Your task to perform on an android device: Search for "usb-a" on costco.com, select the first entry, add it to the cart, then select checkout. Image 0: 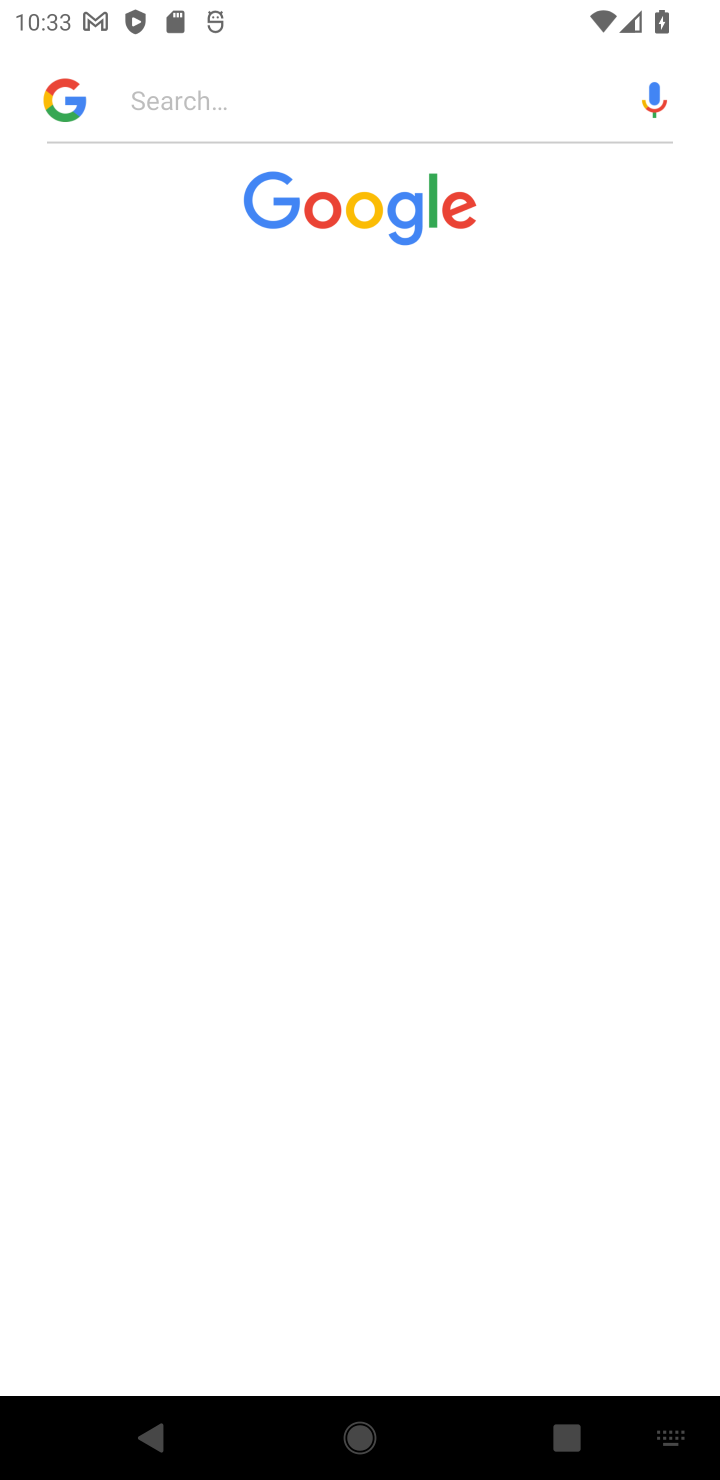
Step 0: press home button
Your task to perform on an android device: Search for "usb-a" on costco.com, select the first entry, add it to the cart, then select checkout. Image 1: 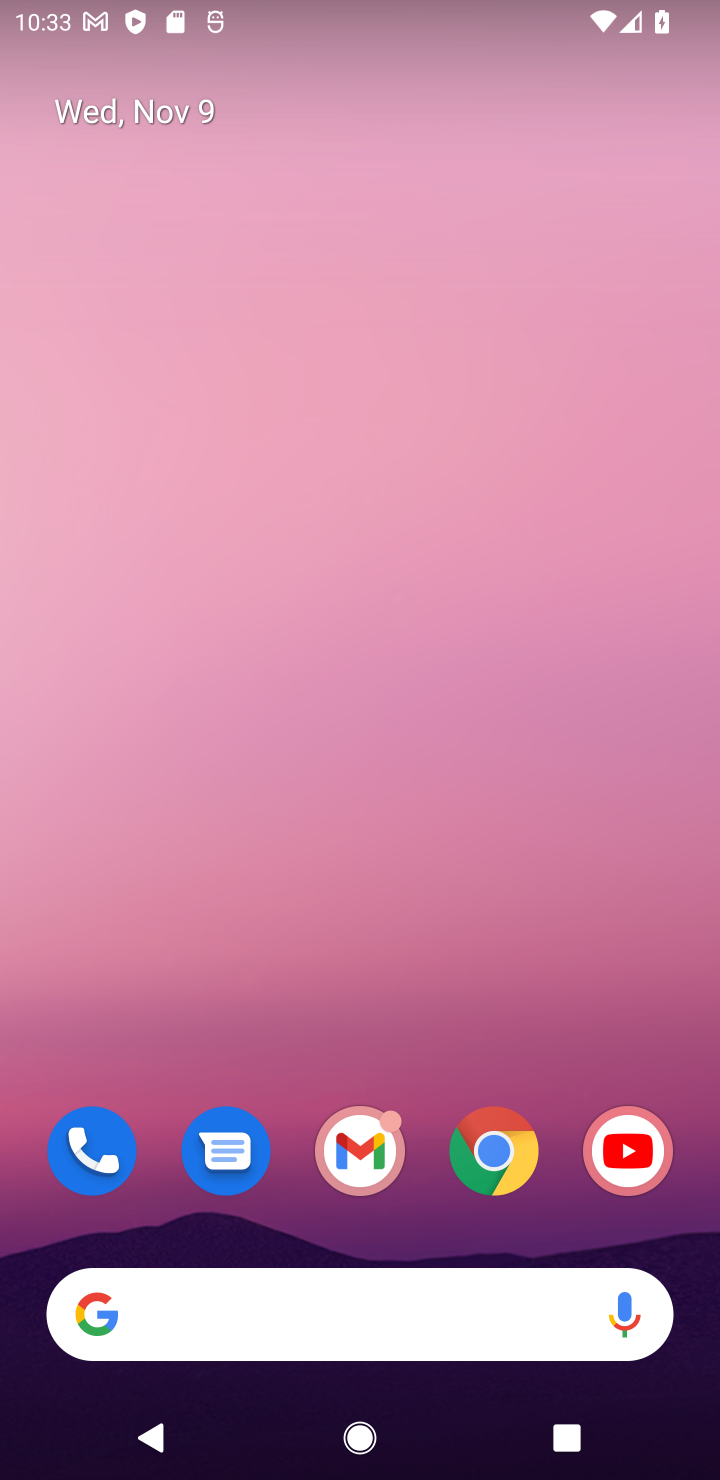
Step 1: click (496, 1157)
Your task to perform on an android device: Search for "usb-a" on costco.com, select the first entry, add it to the cart, then select checkout. Image 2: 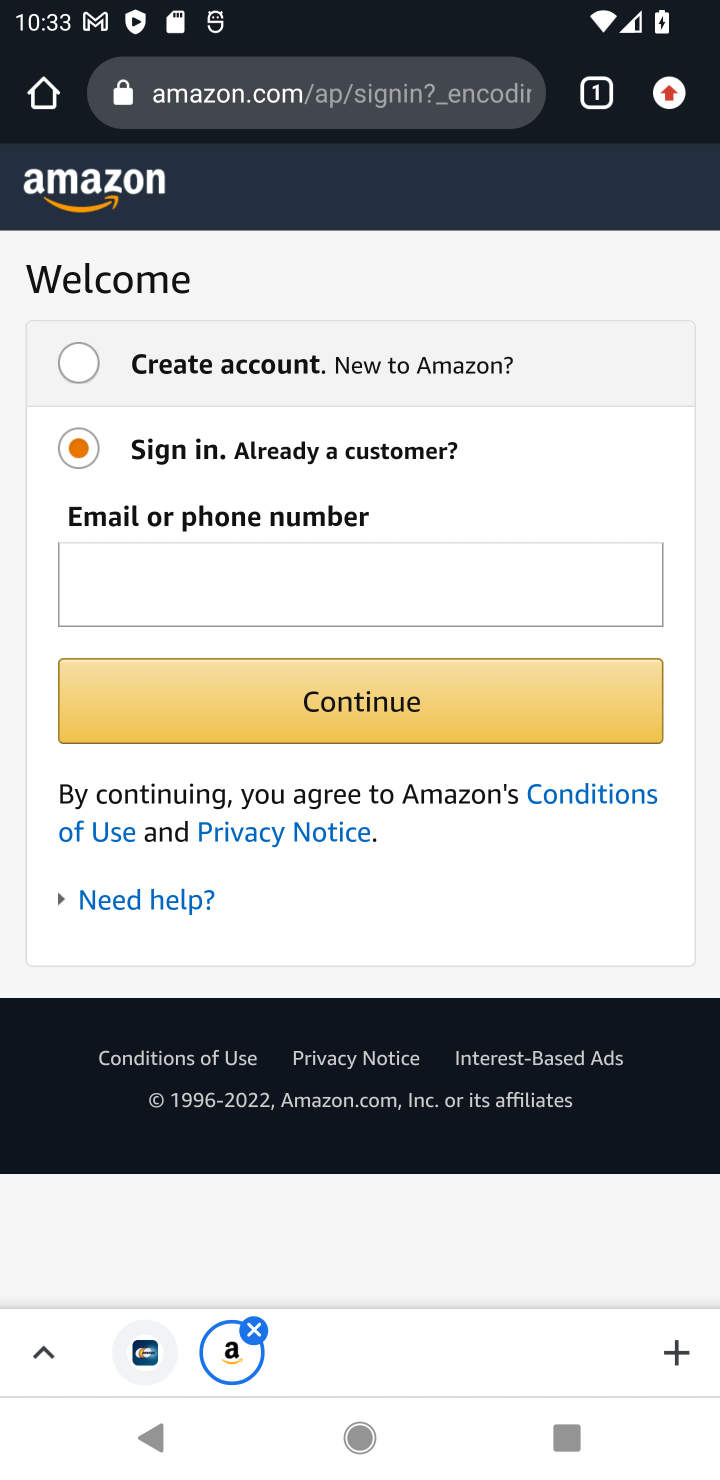
Step 2: click (366, 78)
Your task to perform on an android device: Search for "usb-a" on costco.com, select the first entry, add it to the cart, then select checkout. Image 3: 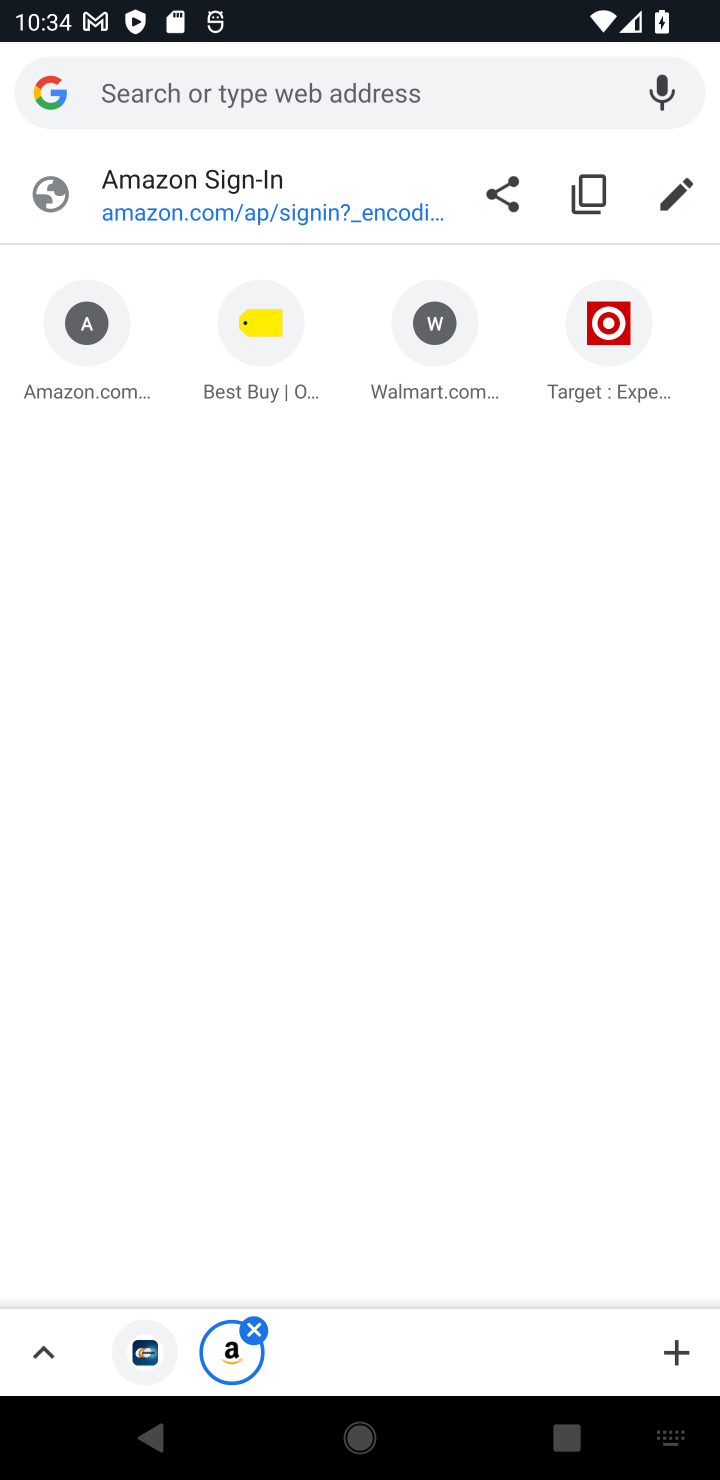
Step 3: press enter
Your task to perform on an android device: Search for "usb-a" on costco.com, select the first entry, add it to the cart, then select checkout. Image 4: 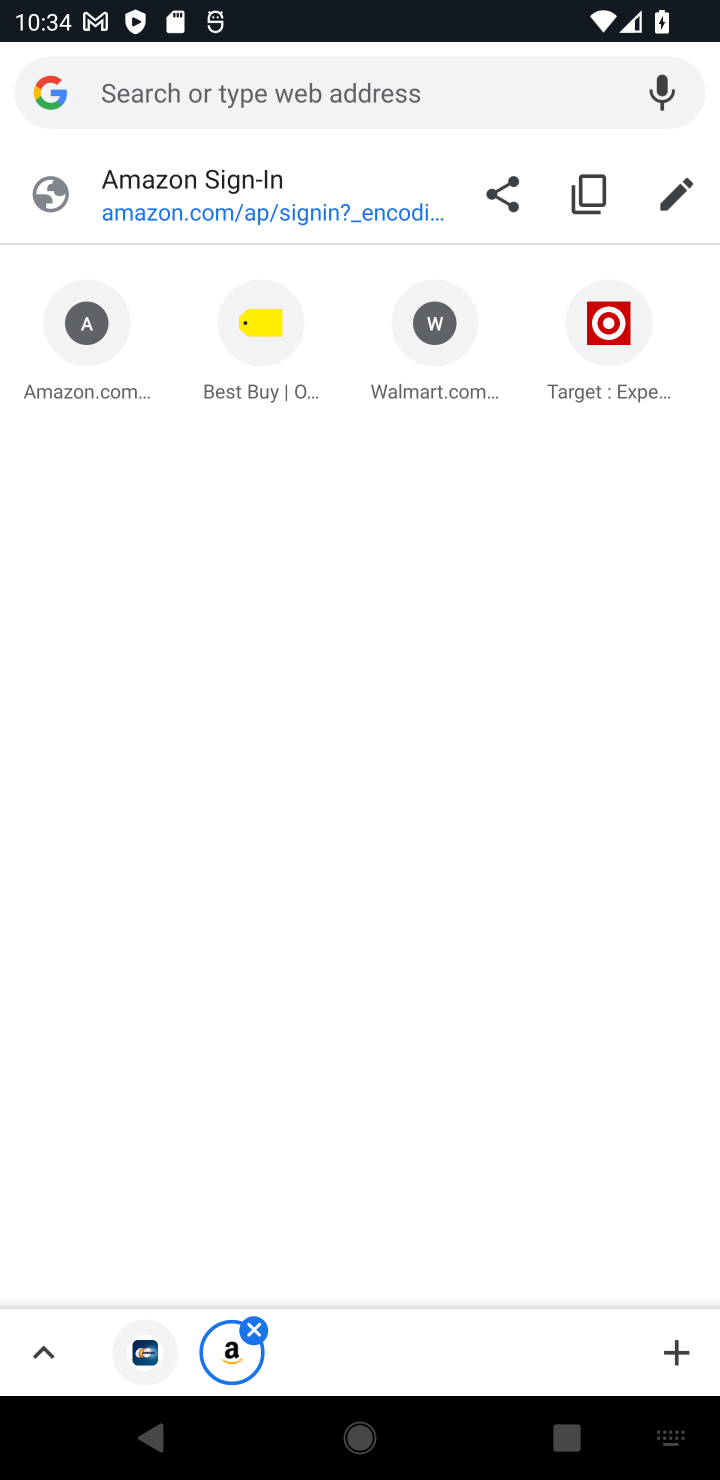
Step 4: type "costco.com"
Your task to perform on an android device: Search for "usb-a" on costco.com, select the first entry, add it to the cart, then select checkout. Image 5: 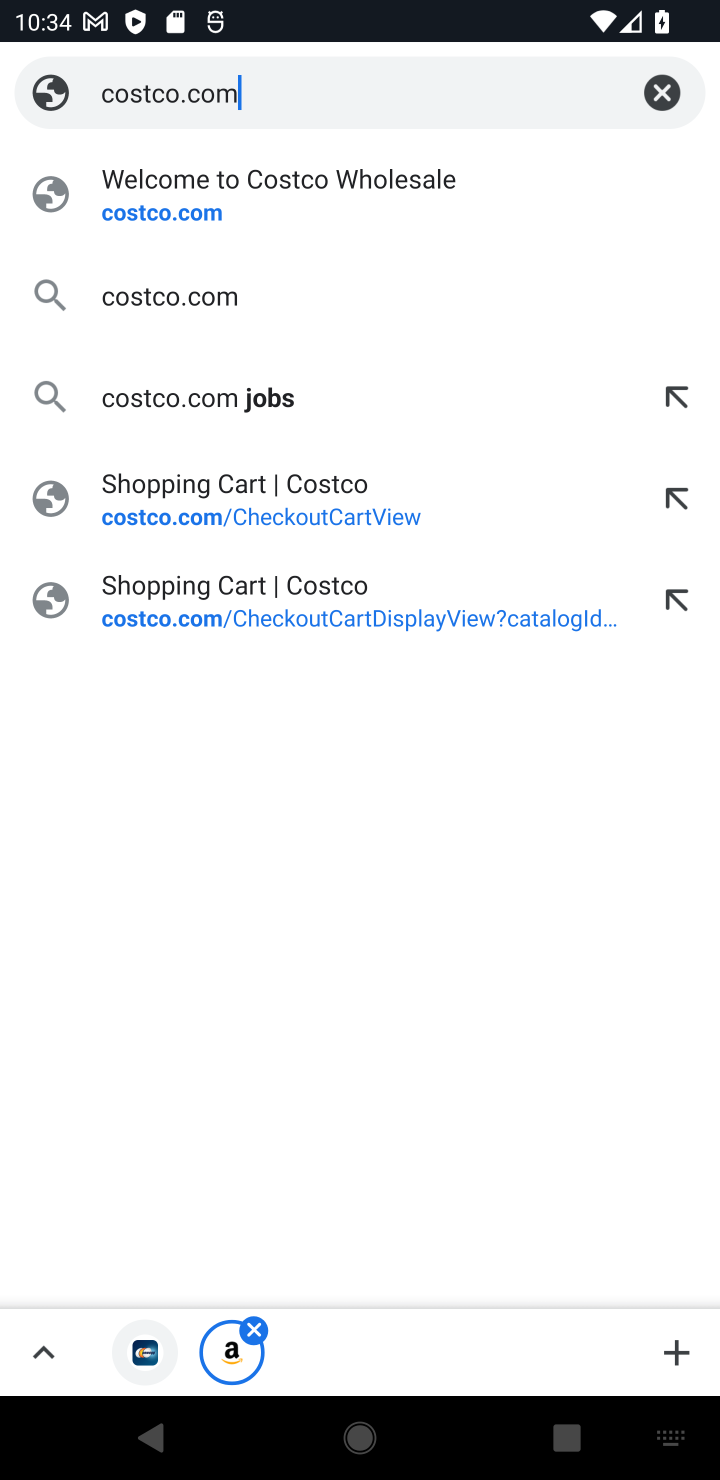
Step 5: click (188, 292)
Your task to perform on an android device: Search for "usb-a" on costco.com, select the first entry, add it to the cart, then select checkout. Image 6: 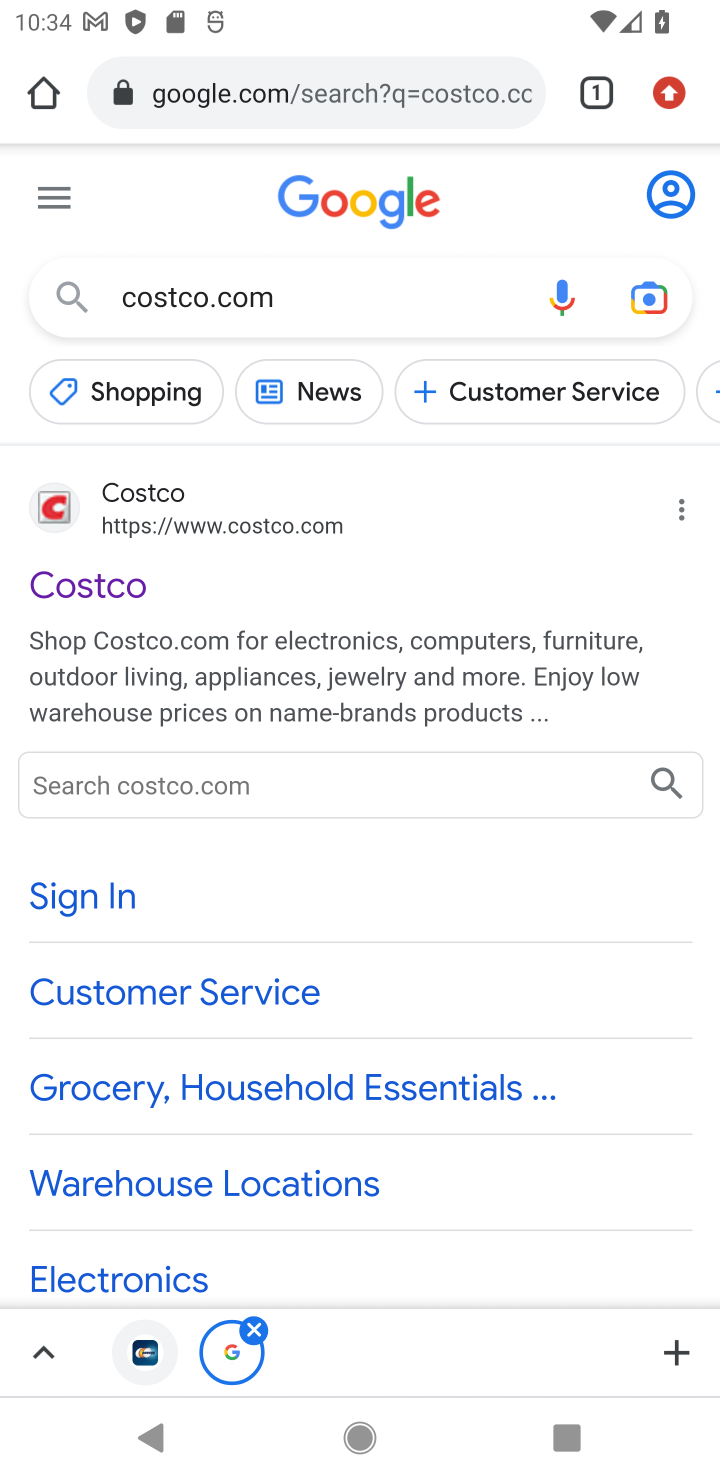
Step 6: click (253, 521)
Your task to perform on an android device: Search for "usb-a" on costco.com, select the first entry, add it to the cart, then select checkout. Image 7: 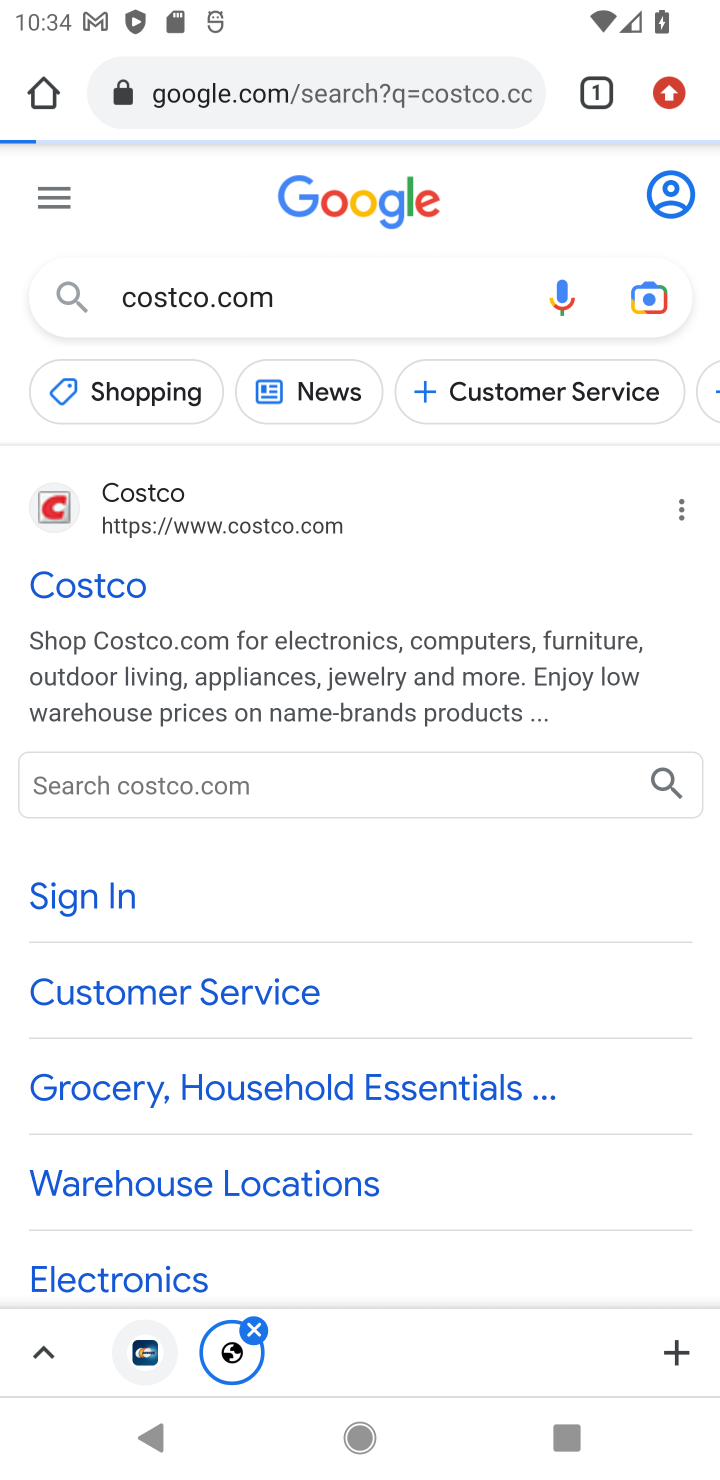
Step 7: click (272, 533)
Your task to perform on an android device: Search for "usb-a" on costco.com, select the first entry, add it to the cart, then select checkout. Image 8: 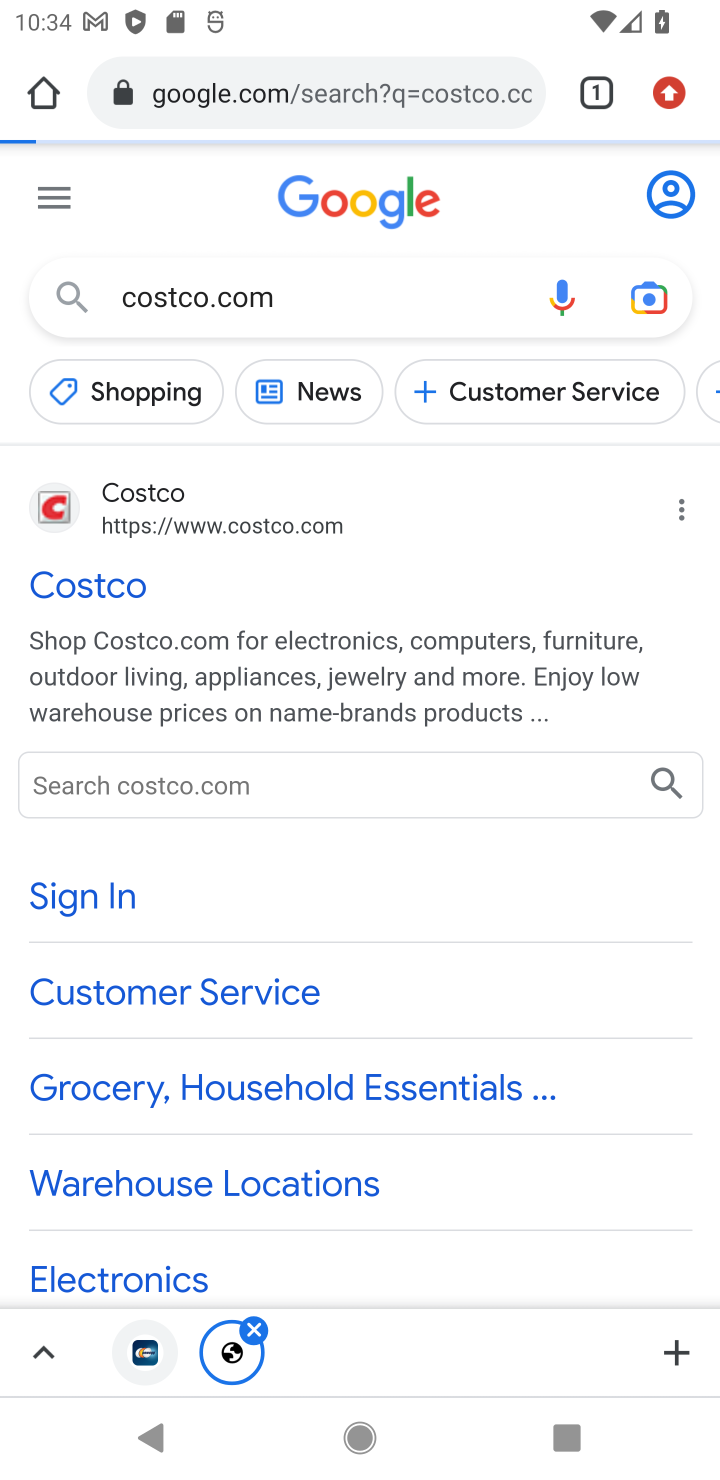
Step 8: click (292, 521)
Your task to perform on an android device: Search for "usb-a" on costco.com, select the first entry, add it to the cart, then select checkout. Image 9: 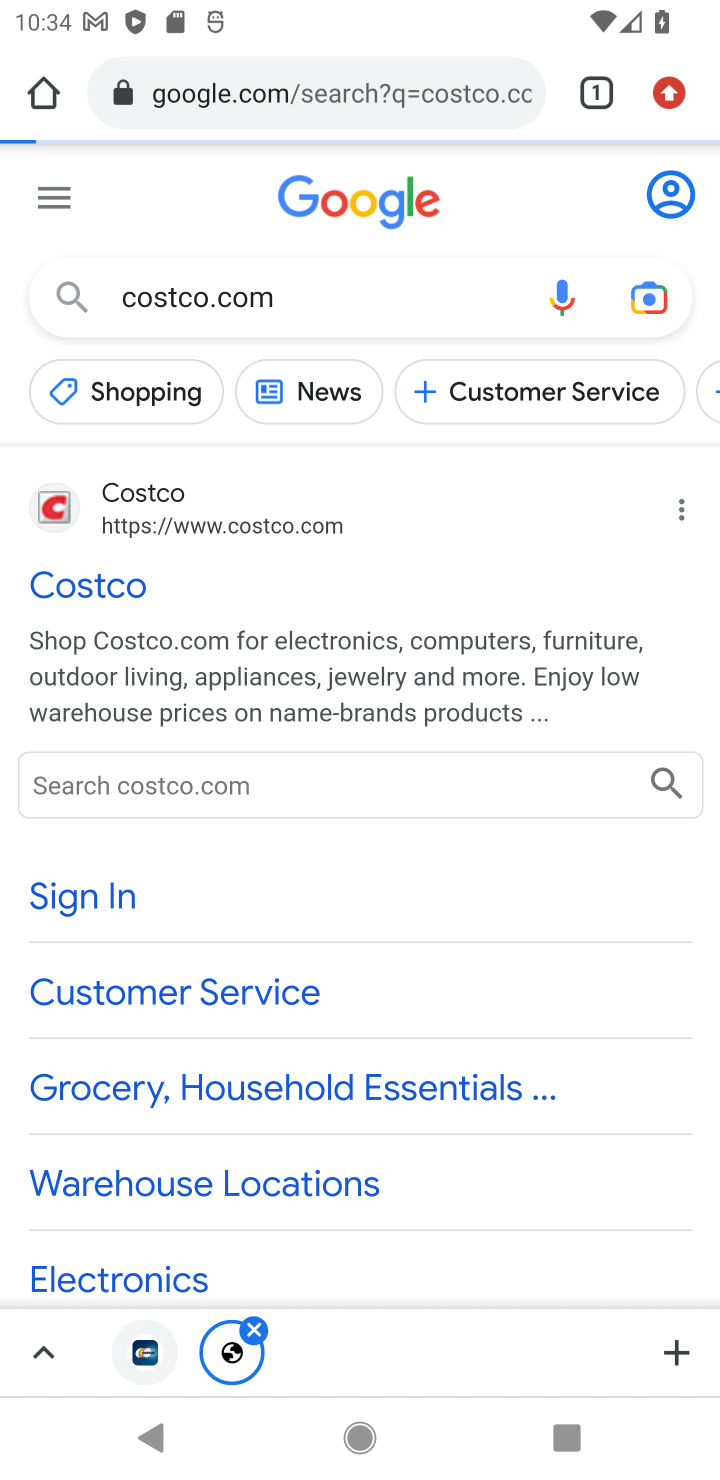
Step 9: click (292, 521)
Your task to perform on an android device: Search for "usb-a" on costco.com, select the first entry, add it to the cart, then select checkout. Image 10: 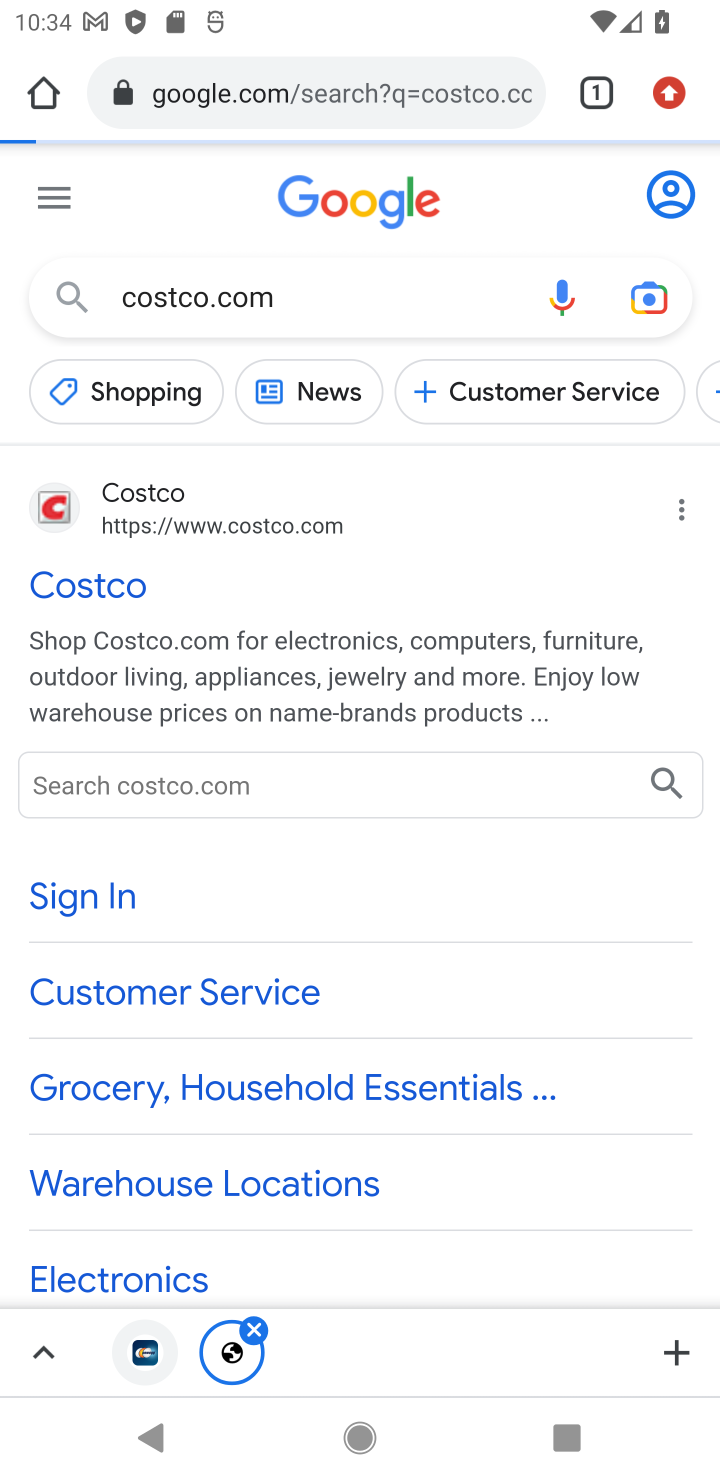
Step 10: drag from (529, 1129) to (490, 661)
Your task to perform on an android device: Search for "usb-a" on costco.com, select the first entry, add it to the cart, then select checkout. Image 11: 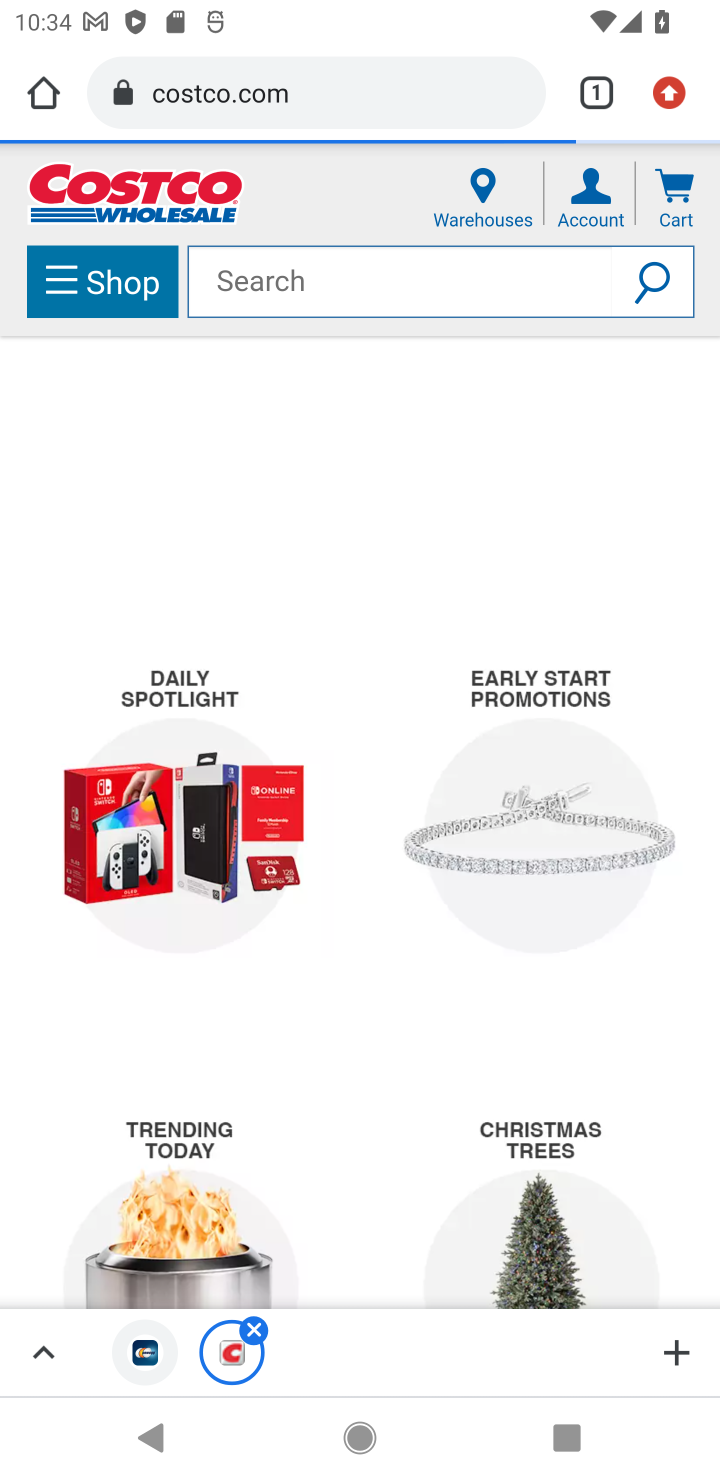
Step 11: click (433, 279)
Your task to perform on an android device: Search for "usb-a" on costco.com, select the first entry, add it to the cart, then select checkout. Image 12: 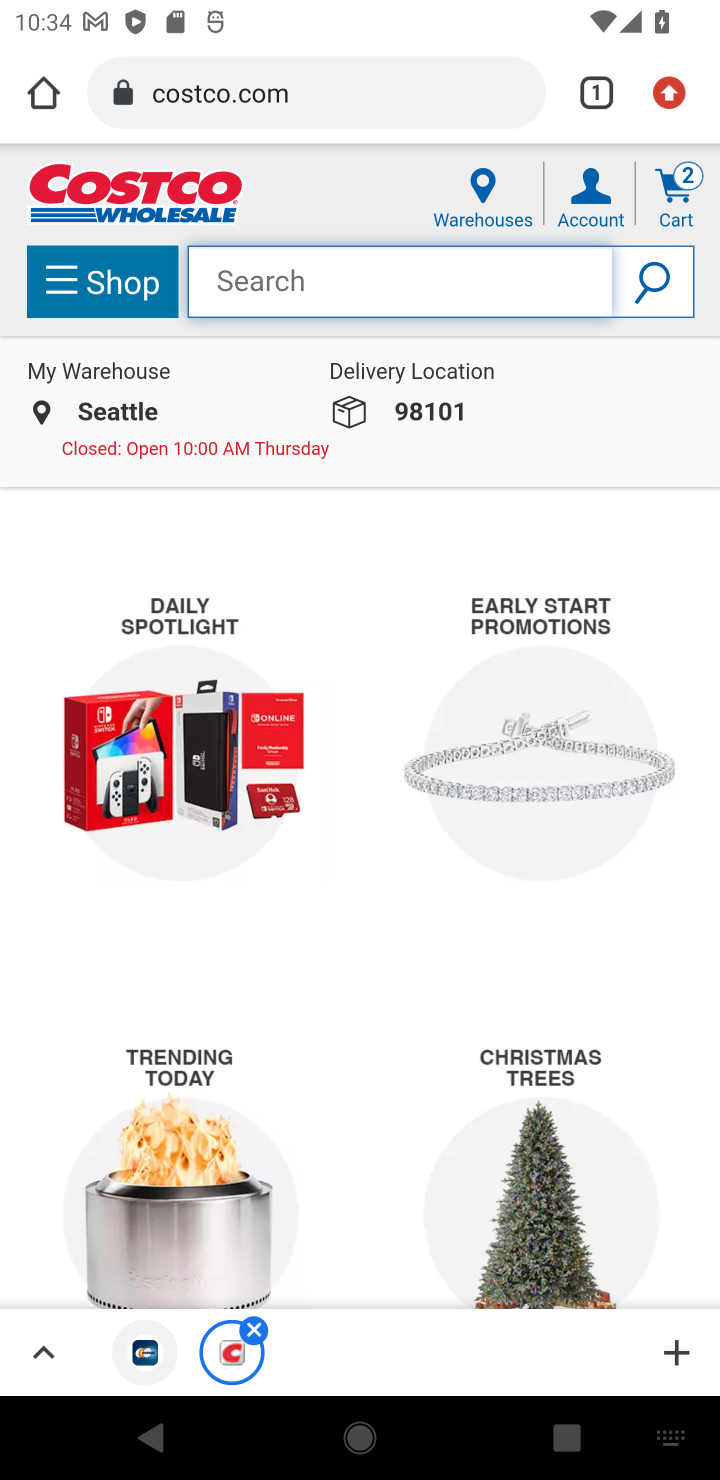
Step 12: press enter
Your task to perform on an android device: Search for "usb-a" on costco.com, select the first entry, add it to the cart, then select checkout. Image 13: 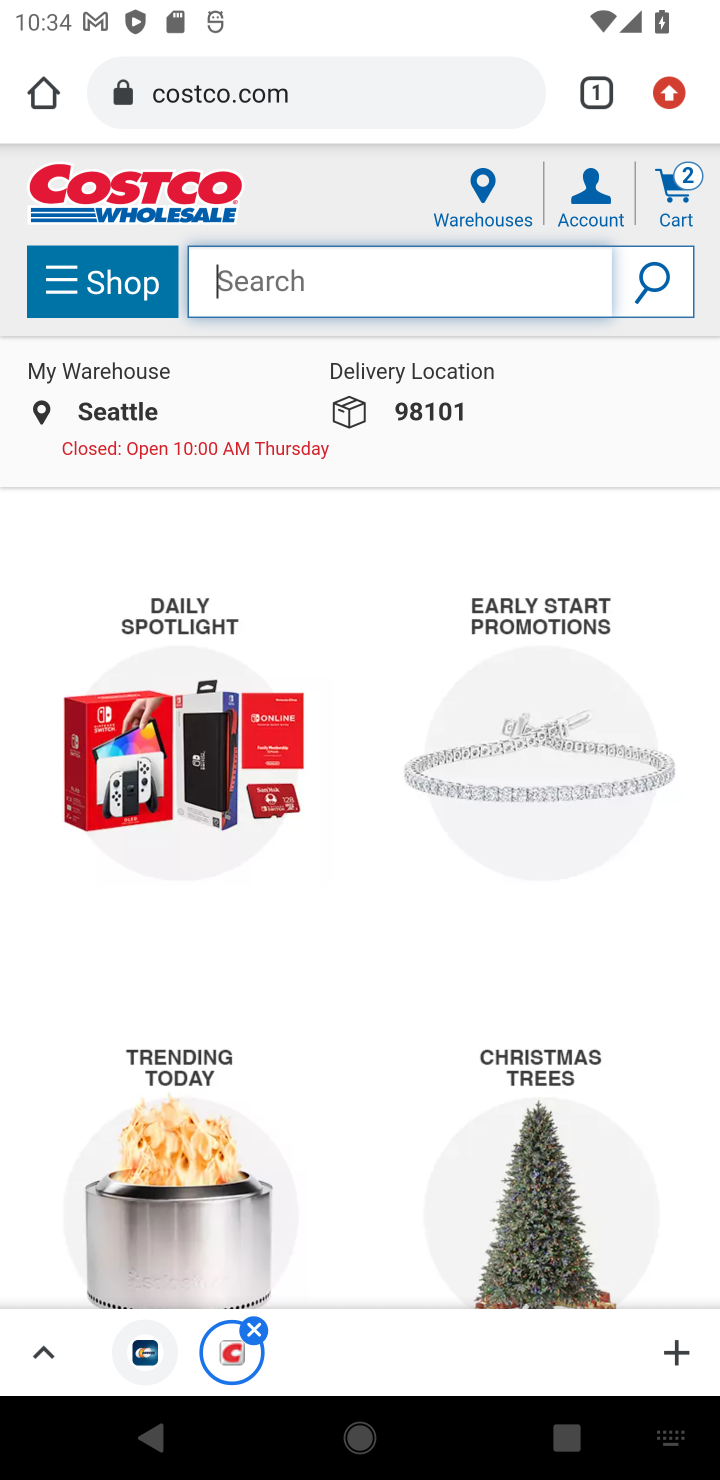
Step 13: type "usb-a"
Your task to perform on an android device: Search for "usb-a" on costco.com, select the first entry, add it to the cart, then select checkout. Image 14: 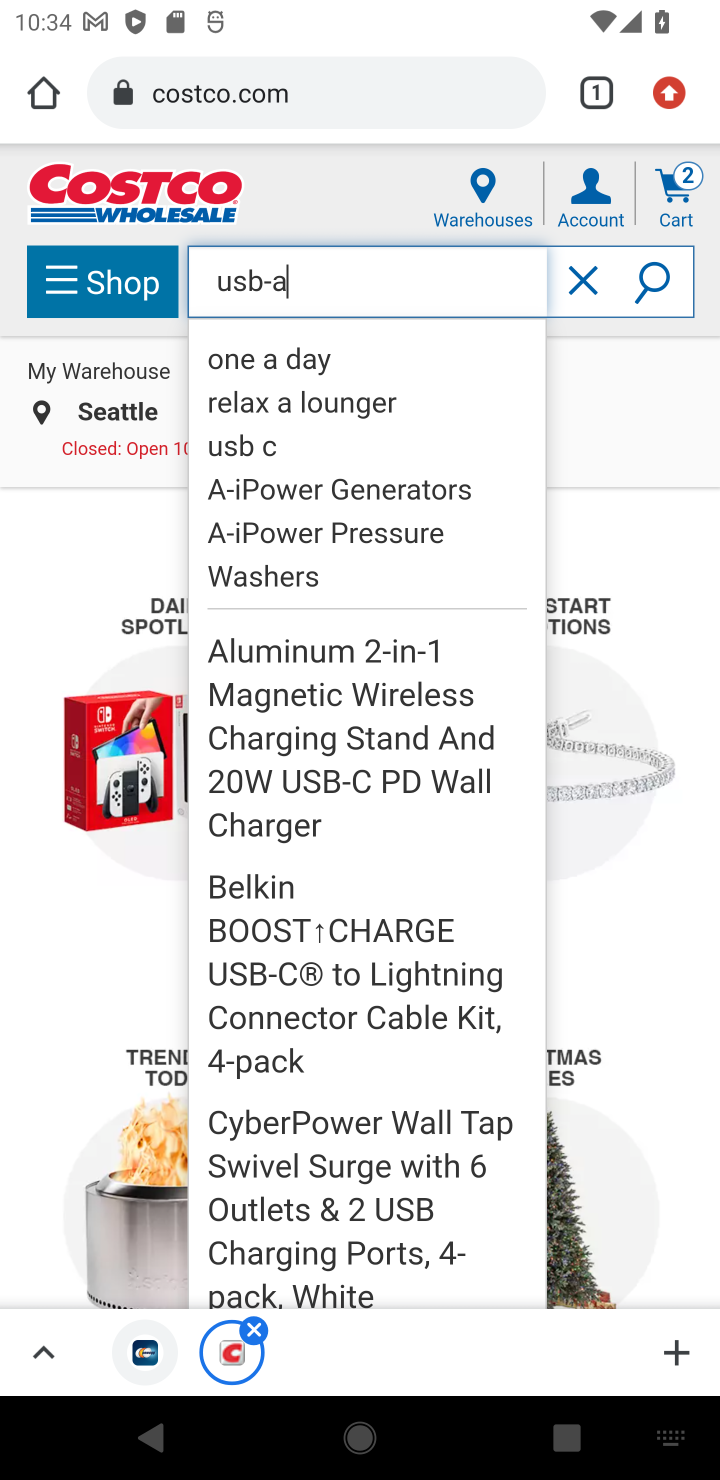
Step 14: click (646, 449)
Your task to perform on an android device: Search for "usb-a" on costco.com, select the first entry, add it to the cart, then select checkout. Image 15: 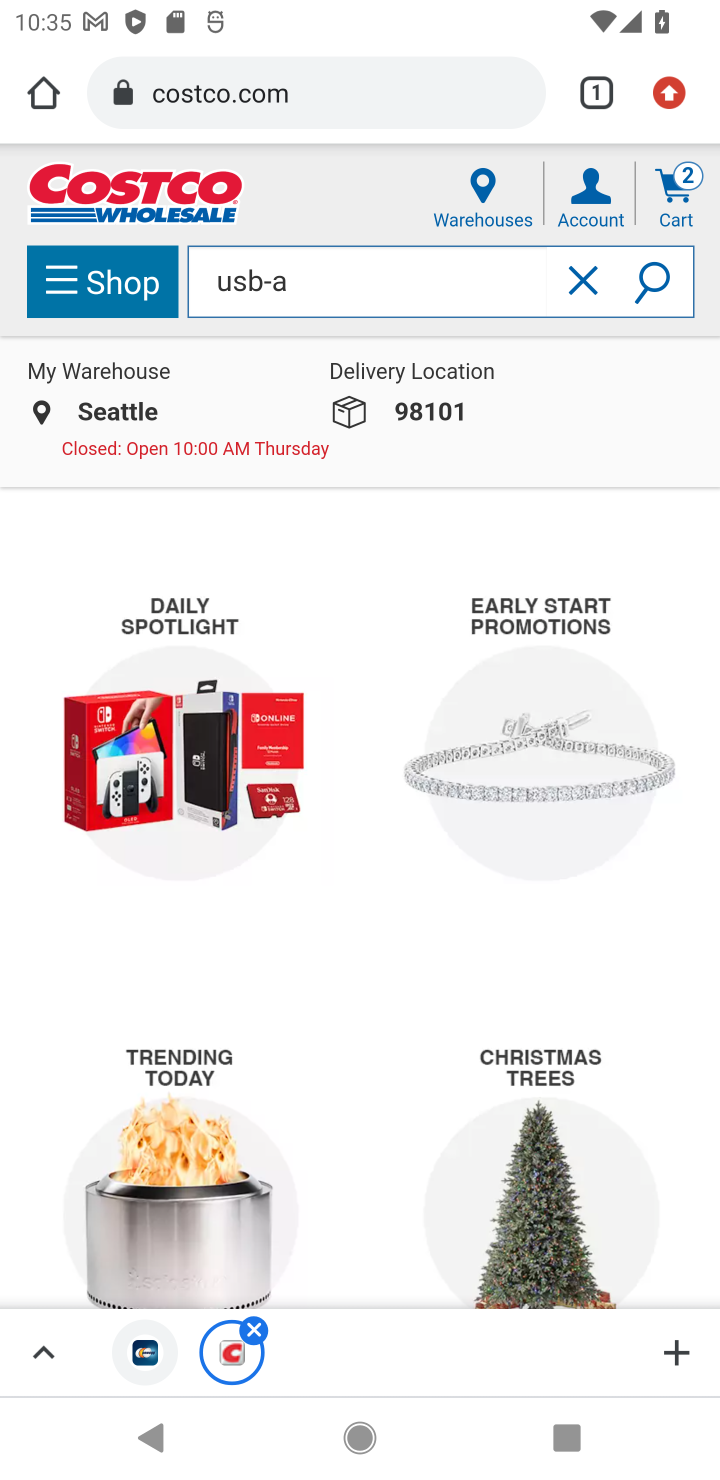
Step 15: task complete